Your task to perform on an android device: change your default location settings in chrome Image 0: 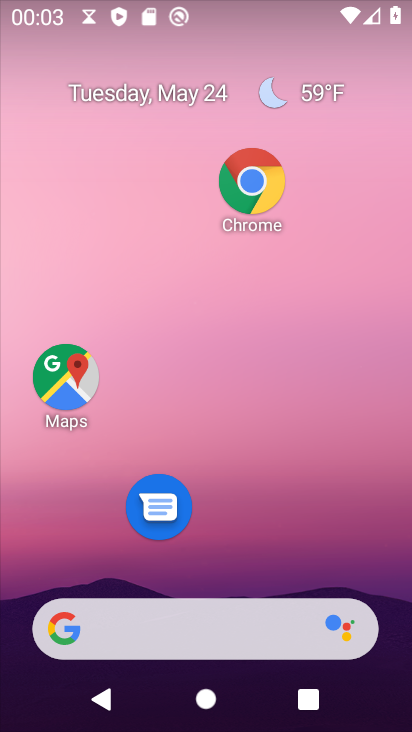
Step 0: drag from (302, 502) to (304, 437)
Your task to perform on an android device: change your default location settings in chrome Image 1: 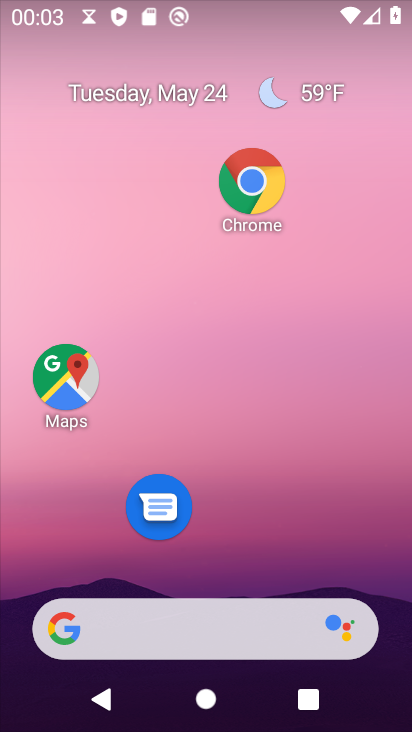
Step 1: drag from (315, 528) to (331, 197)
Your task to perform on an android device: change your default location settings in chrome Image 2: 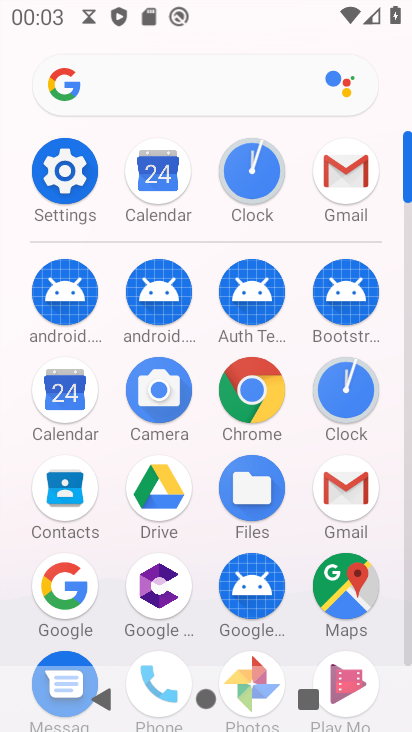
Step 2: click (251, 378)
Your task to perform on an android device: change your default location settings in chrome Image 3: 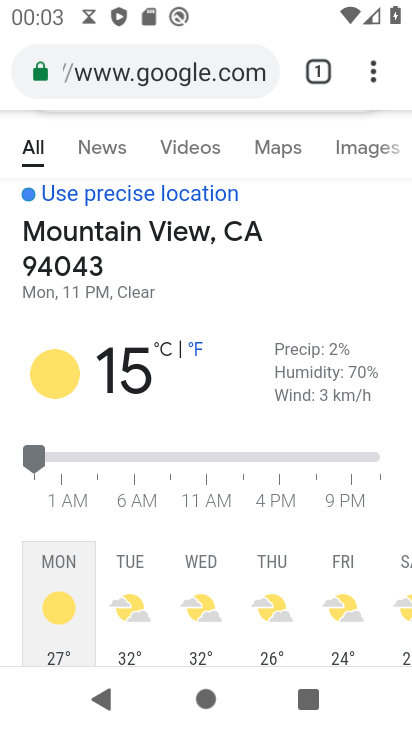
Step 3: click (363, 72)
Your task to perform on an android device: change your default location settings in chrome Image 4: 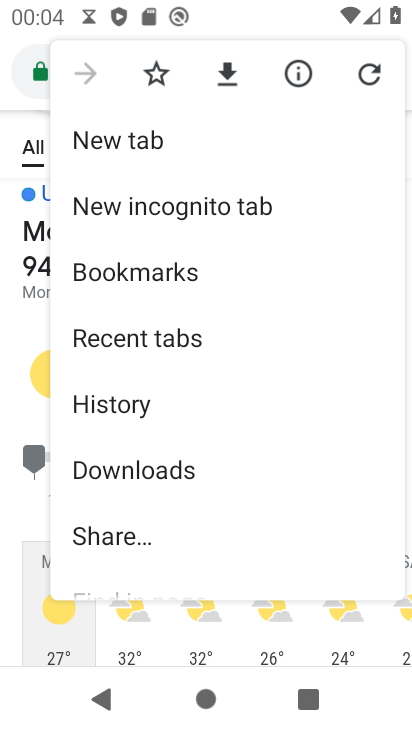
Step 4: drag from (304, 462) to (304, 213)
Your task to perform on an android device: change your default location settings in chrome Image 5: 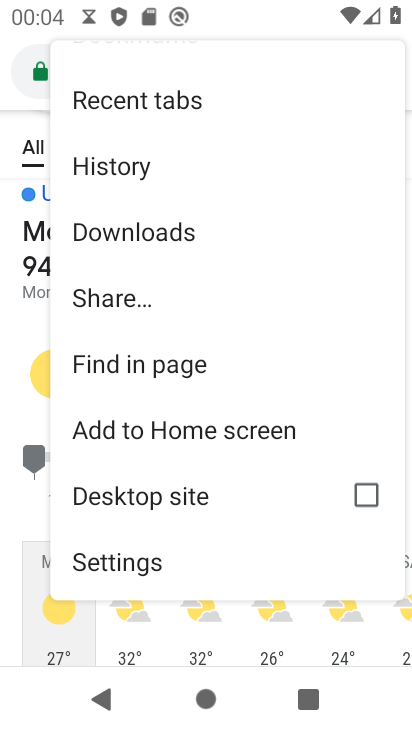
Step 5: click (163, 557)
Your task to perform on an android device: change your default location settings in chrome Image 6: 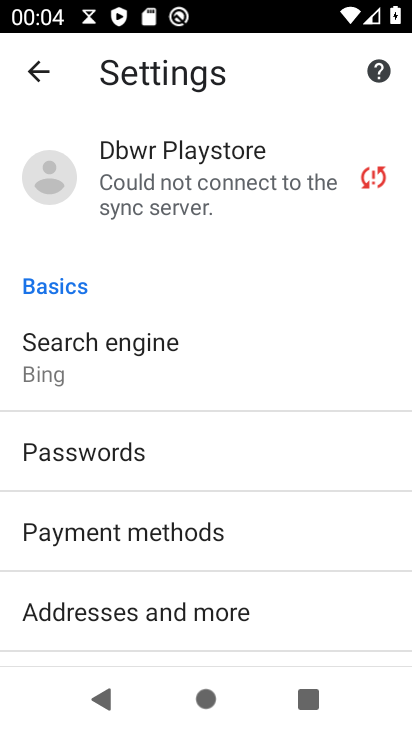
Step 6: click (220, 359)
Your task to perform on an android device: change your default location settings in chrome Image 7: 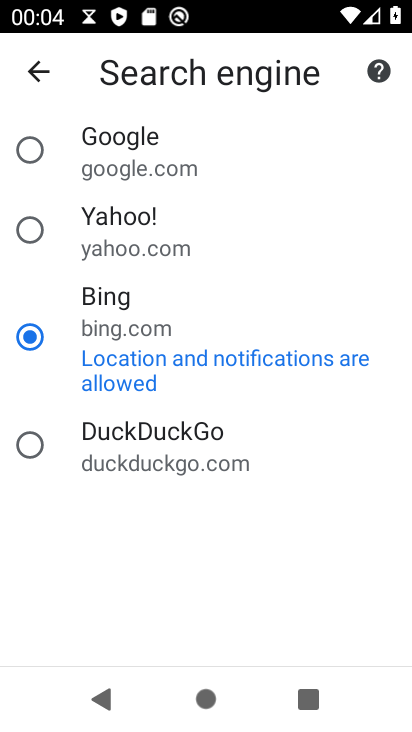
Step 7: click (105, 206)
Your task to perform on an android device: change your default location settings in chrome Image 8: 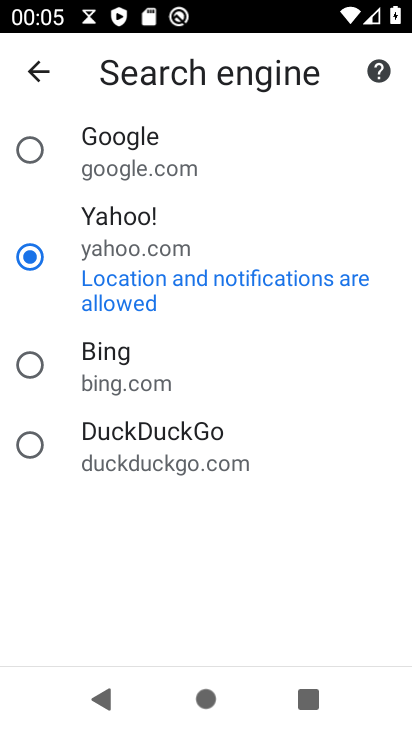
Step 8: task complete